Your task to perform on an android device: delete browsing data in the chrome app Image 0: 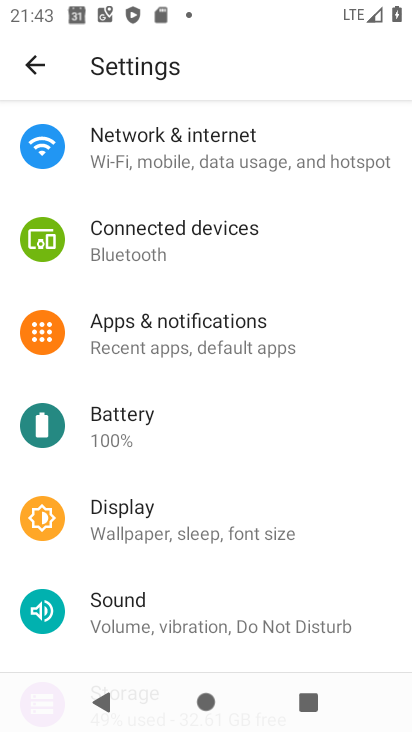
Step 0: press home button
Your task to perform on an android device: delete browsing data in the chrome app Image 1: 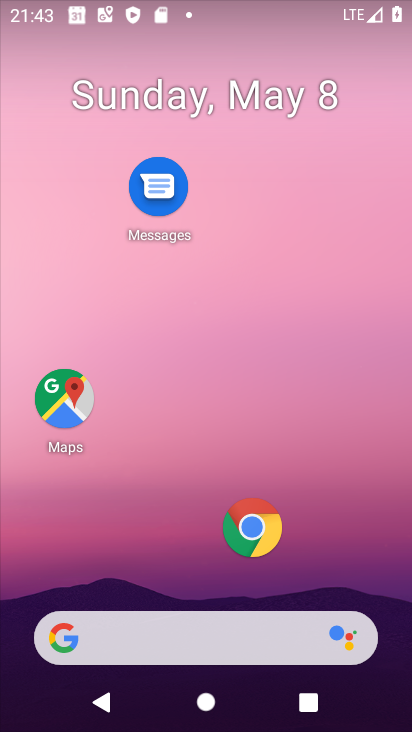
Step 1: click (254, 526)
Your task to perform on an android device: delete browsing data in the chrome app Image 2: 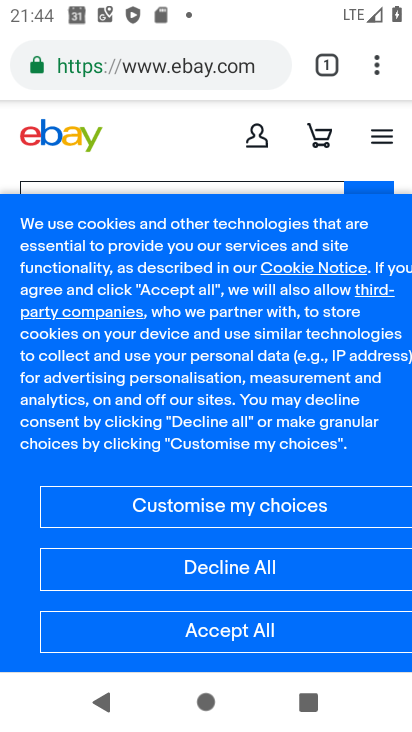
Step 2: click (368, 68)
Your task to perform on an android device: delete browsing data in the chrome app Image 3: 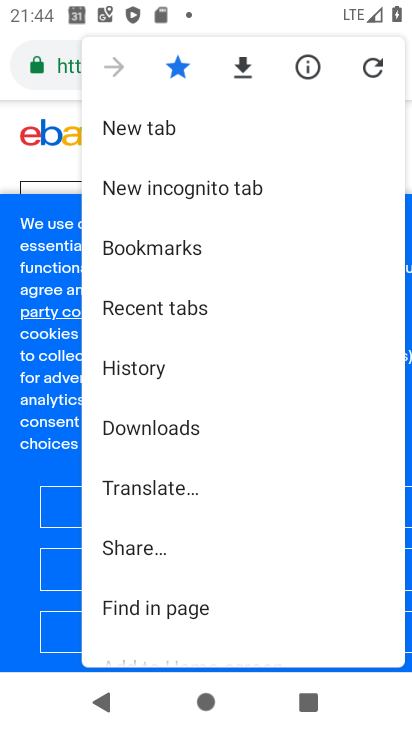
Step 3: drag from (203, 500) to (211, 186)
Your task to perform on an android device: delete browsing data in the chrome app Image 4: 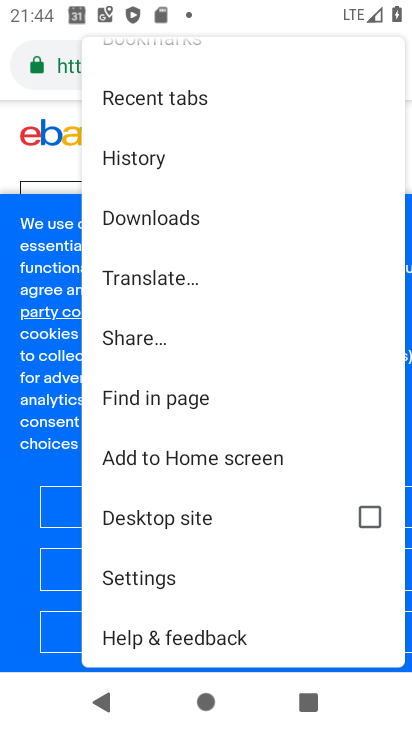
Step 4: click (167, 585)
Your task to perform on an android device: delete browsing data in the chrome app Image 5: 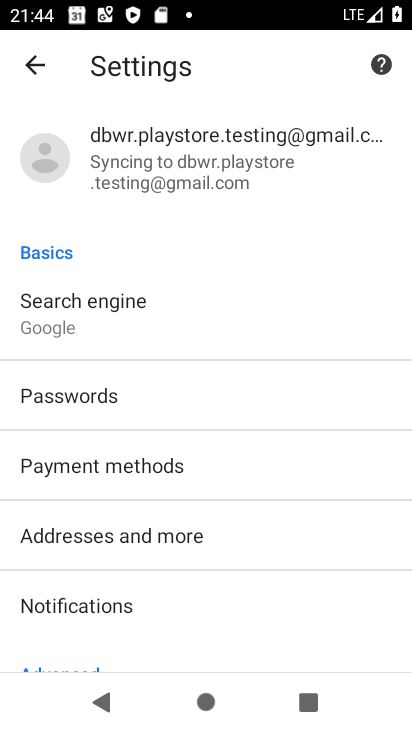
Step 5: drag from (145, 570) to (140, 284)
Your task to perform on an android device: delete browsing data in the chrome app Image 6: 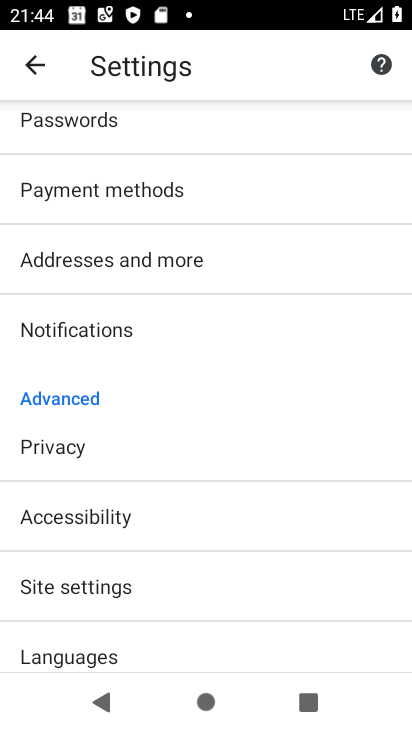
Step 6: click (116, 457)
Your task to perform on an android device: delete browsing data in the chrome app Image 7: 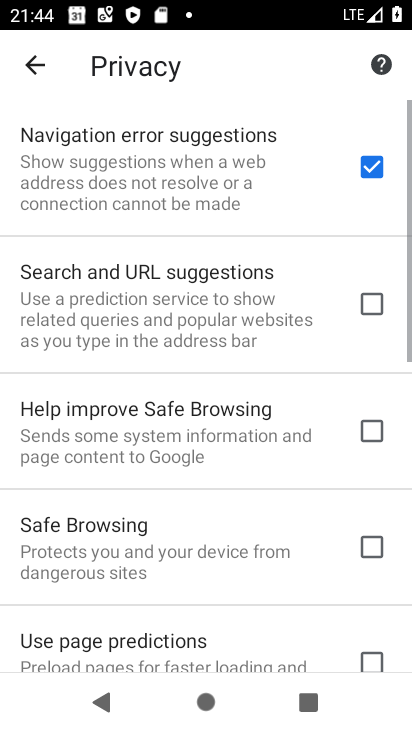
Step 7: drag from (261, 584) to (263, 15)
Your task to perform on an android device: delete browsing data in the chrome app Image 8: 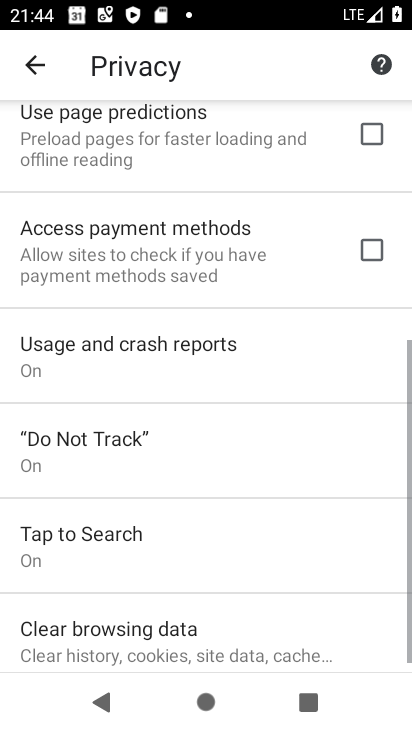
Step 8: drag from (166, 591) to (161, 333)
Your task to perform on an android device: delete browsing data in the chrome app Image 9: 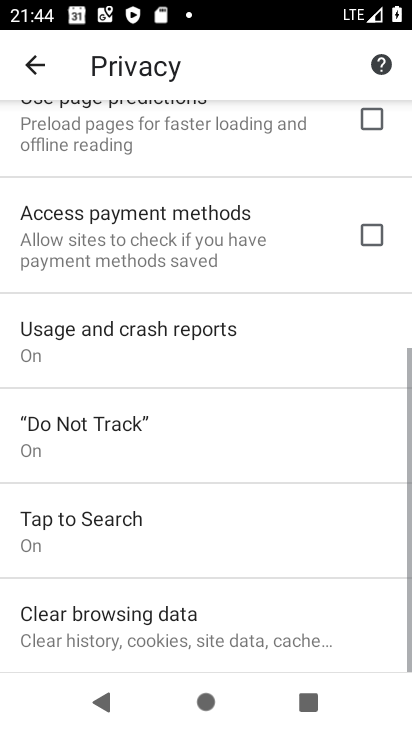
Step 9: click (100, 637)
Your task to perform on an android device: delete browsing data in the chrome app Image 10: 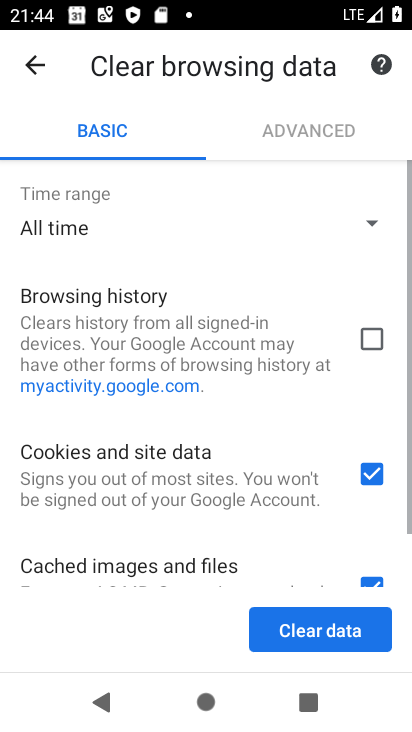
Step 10: click (369, 330)
Your task to perform on an android device: delete browsing data in the chrome app Image 11: 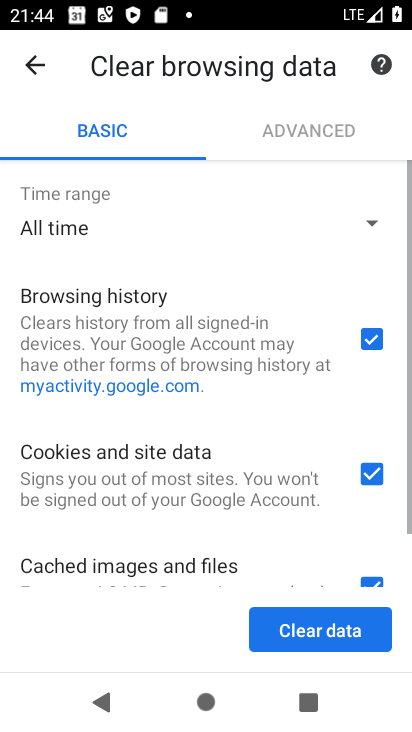
Step 11: click (368, 480)
Your task to perform on an android device: delete browsing data in the chrome app Image 12: 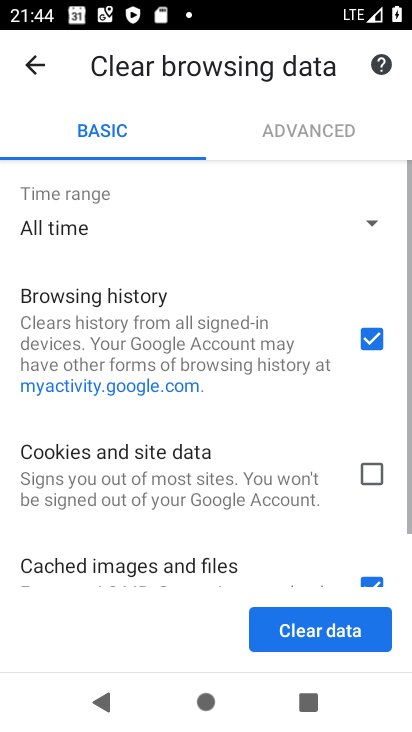
Step 12: click (367, 580)
Your task to perform on an android device: delete browsing data in the chrome app Image 13: 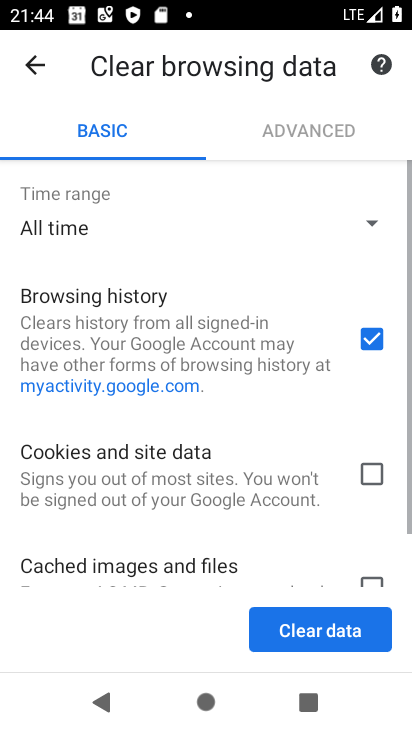
Step 13: click (319, 642)
Your task to perform on an android device: delete browsing data in the chrome app Image 14: 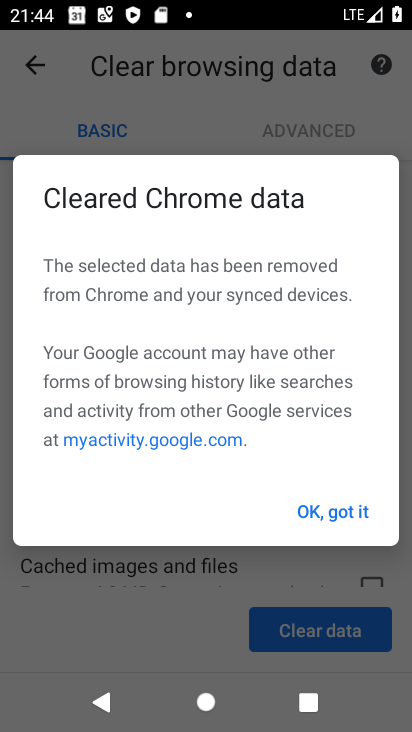
Step 14: click (343, 527)
Your task to perform on an android device: delete browsing data in the chrome app Image 15: 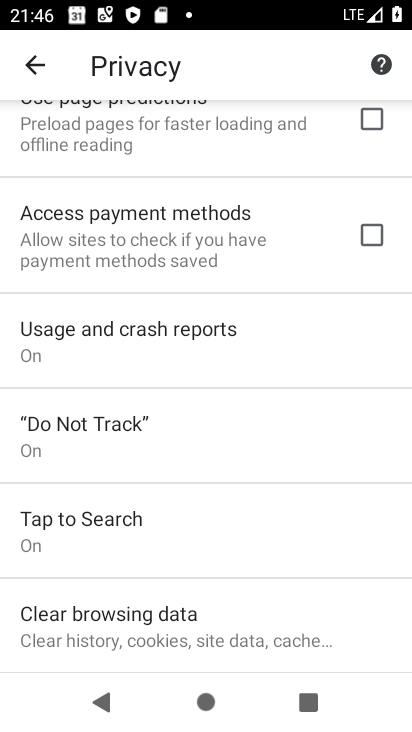
Step 15: task complete